Your task to perform on an android device: toggle show notifications on the lock screen Image 0: 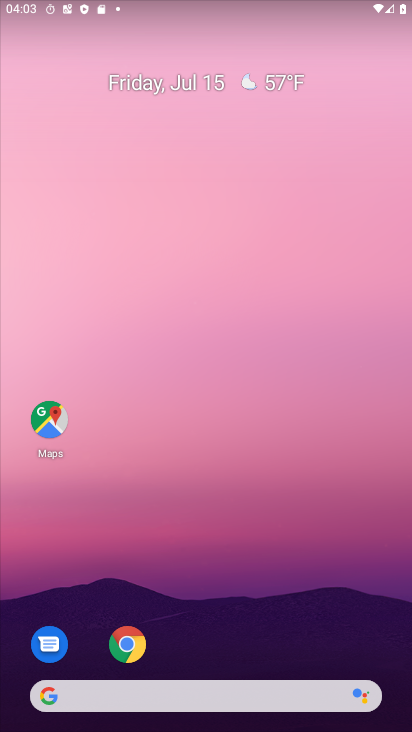
Step 0: drag from (267, 624) to (214, 81)
Your task to perform on an android device: toggle show notifications on the lock screen Image 1: 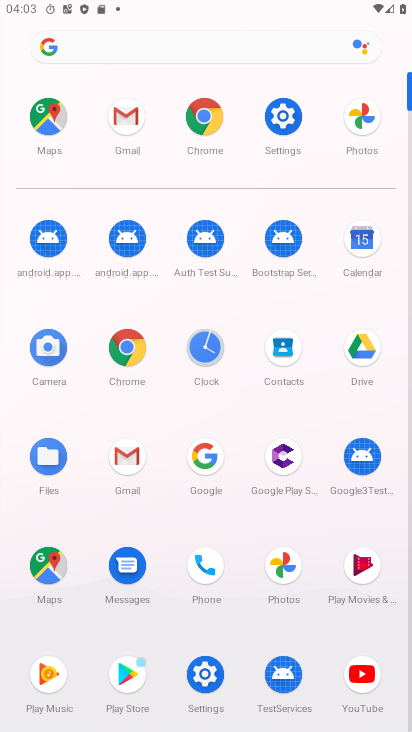
Step 1: click (270, 125)
Your task to perform on an android device: toggle show notifications on the lock screen Image 2: 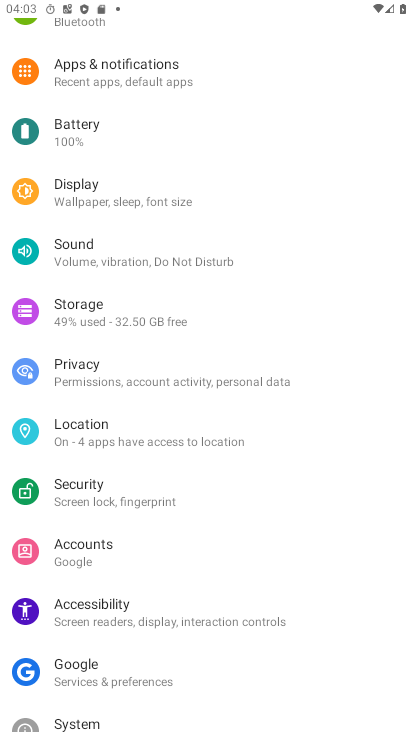
Step 2: click (207, 75)
Your task to perform on an android device: toggle show notifications on the lock screen Image 3: 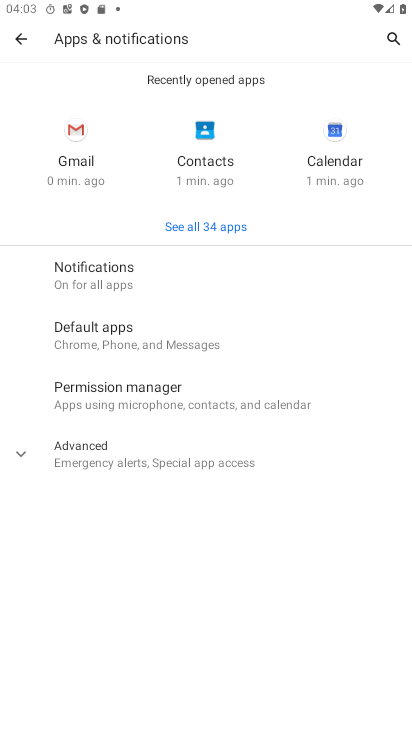
Step 3: click (169, 286)
Your task to perform on an android device: toggle show notifications on the lock screen Image 4: 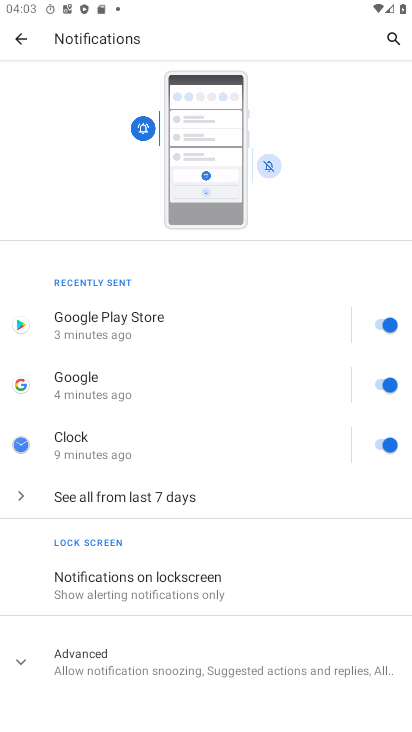
Step 4: click (221, 601)
Your task to perform on an android device: toggle show notifications on the lock screen Image 5: 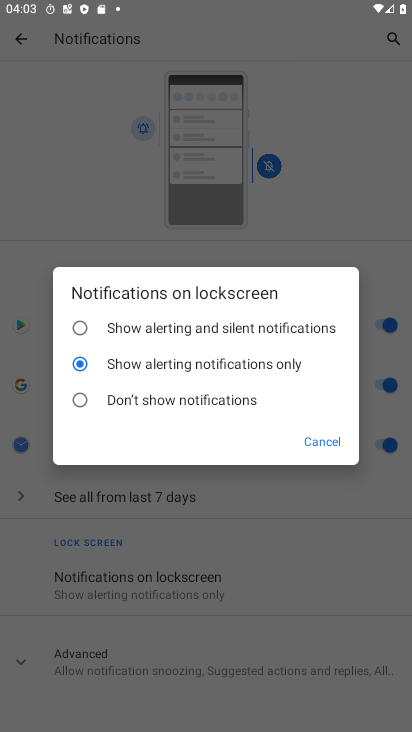
Step 5: click (213, 327)
Your task to perform on an android device: toggle show notifications on the lock screen Image 6: 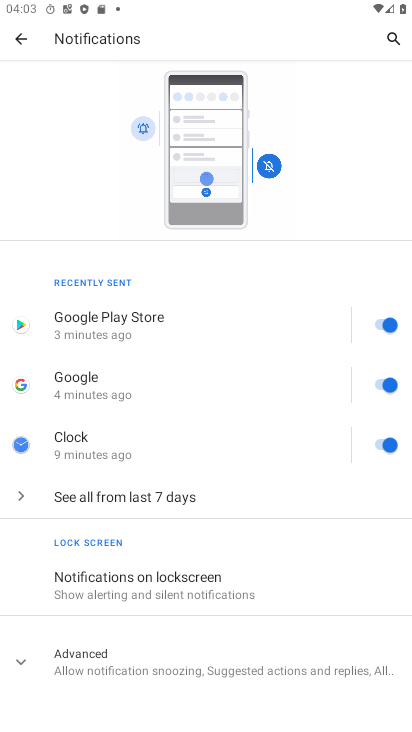
Step 6: task complete